Your task to perform on an android device: Open the map Image 0: 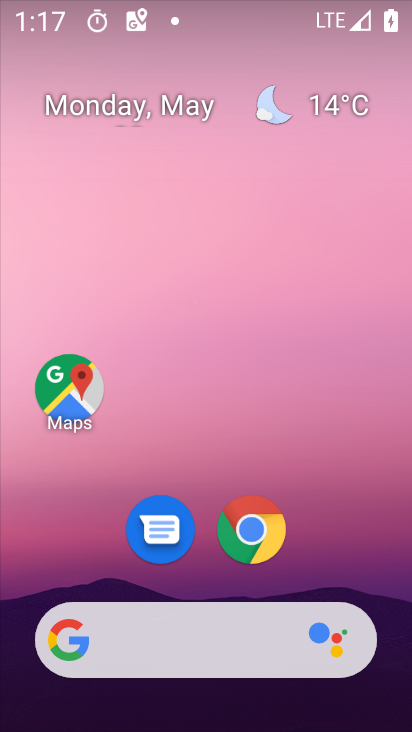
Step 0: drag from (371, 583) to (370, 209)
Your task to perform on an android device: Open the map Image 1: 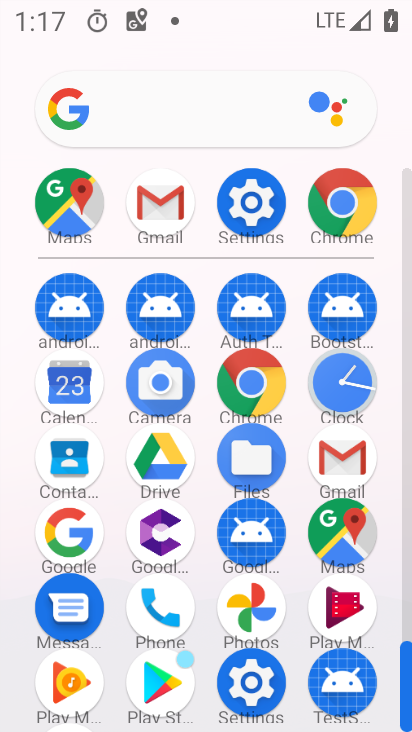
Step 1: click (348, 541)
Your task to perform on an android device: Open the map Image 2: 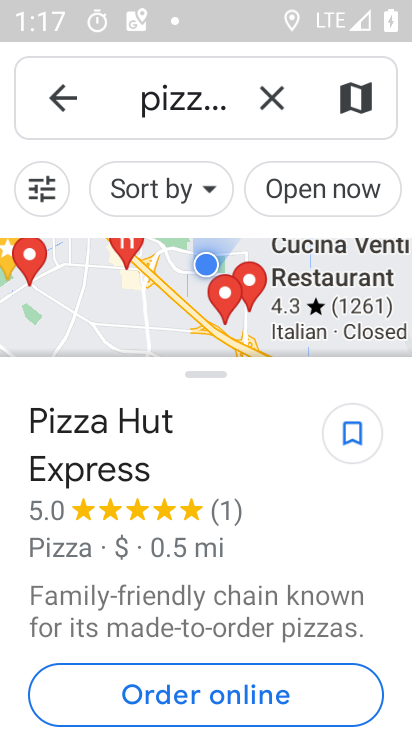
Step 2: task complete